Your task to perform on an android device: choose inbox layout in the gmail app Image 0: 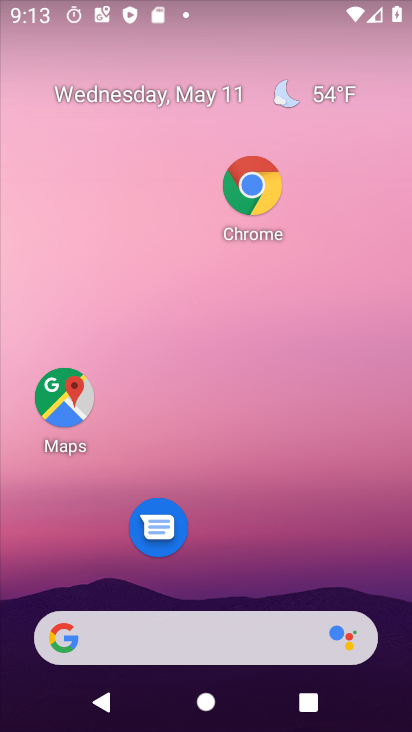
Step 0: drag from (275, 535) to (269, 5)
Your task to perform on an android device: choose inbox layout in the gmail app Image 1: 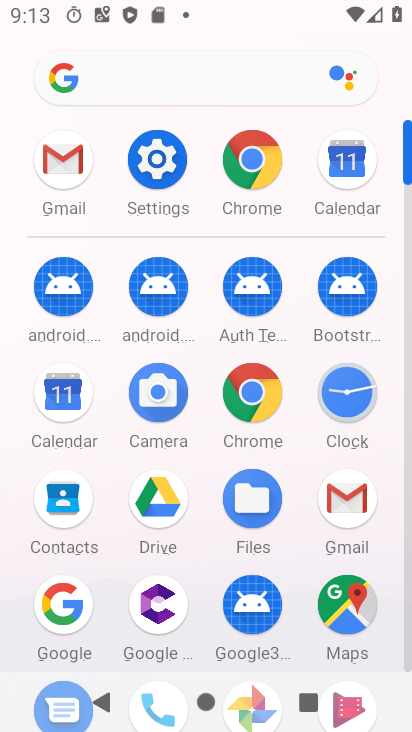
Step 1: click (60, 148)
Your task to perform on an android device: choose inbox layout in the gmail app Image 2: 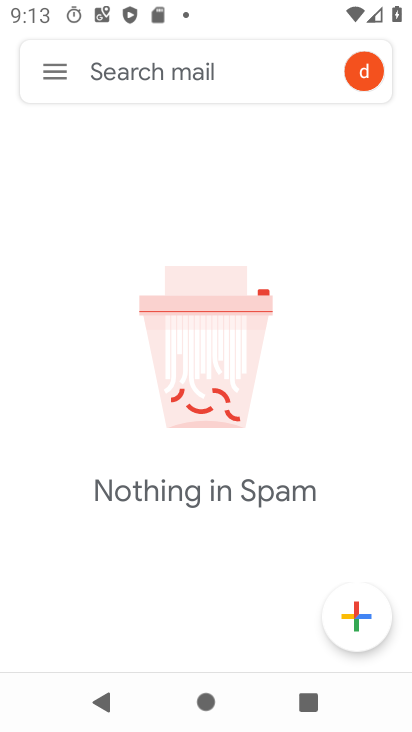
Step 2: click (63, 80)
Your task to perform on an android device: choose inbox layout in the gmail app Image 3: 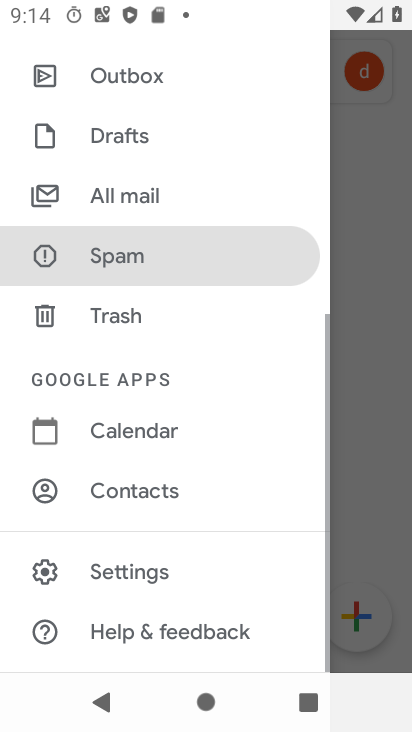
Step 3: click (162, 584)
Your task to perform on an android device: choose inbox layout in the gmail app Image 4: 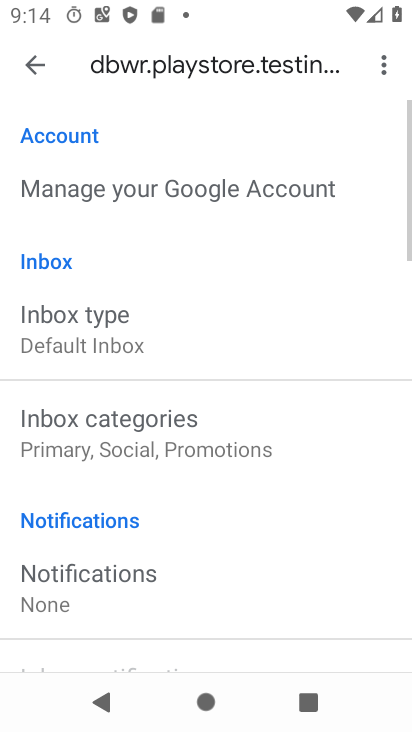
Step 4: click (127, 320)
Your task to perform on an android device: choose inbox layout in the gmail app Image 5: 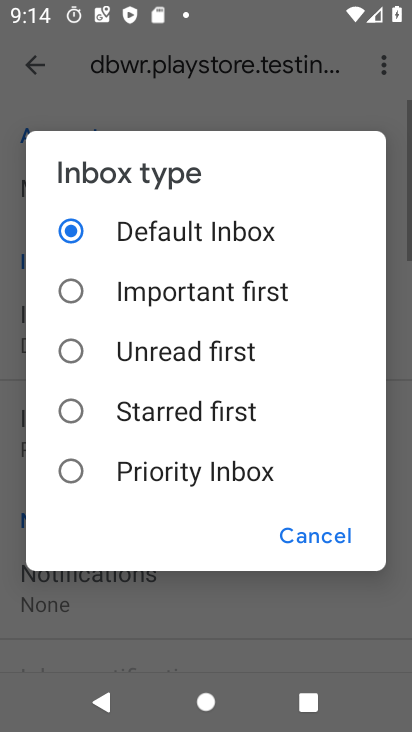
Step 5: click (73, 289)
Your task to perform on an android device: choose inbox layout in the gmail app Image 6: 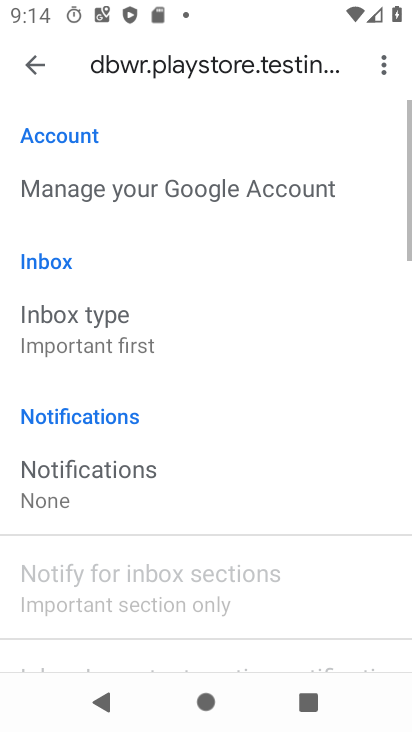
Step 6: task complete